Your task to perform on an android device: add a label to a message in the gmail app Image 0: 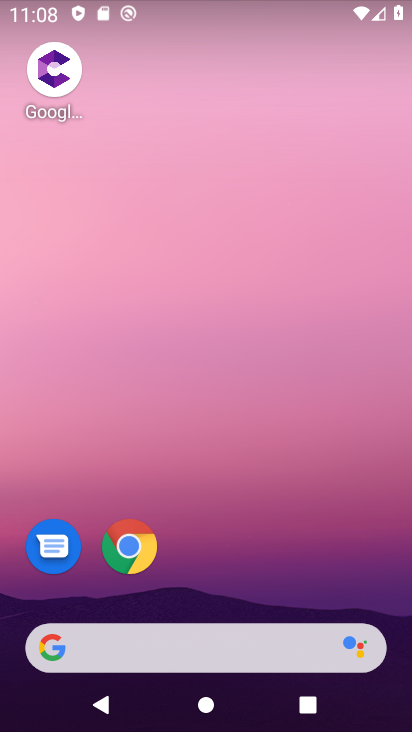
Step 0: drag from (297, 556) to (208, 37)
Your task to perform on an android device: add a label to a message in the gmail app Image 1: 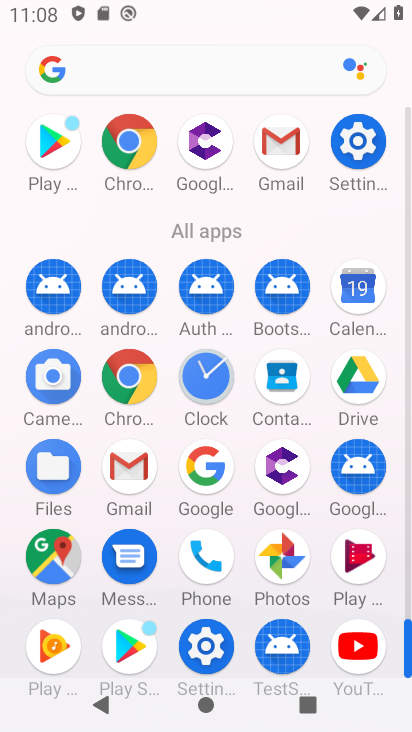
Step 1: click (128, 460)
Your task to perform on an android device: add a label to a message in the gmail app Image 2: 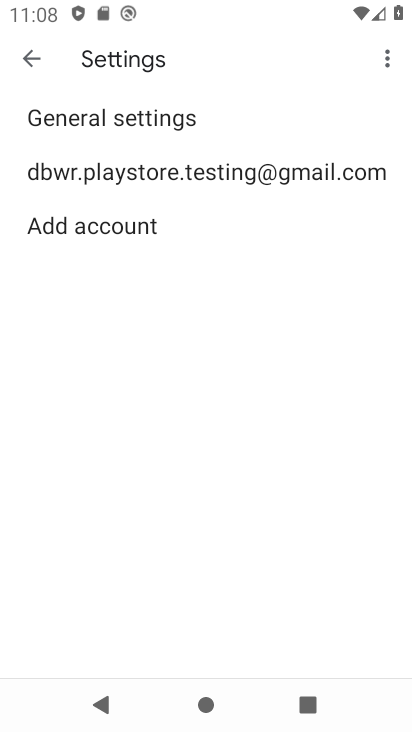
Step 2: click (31, 54)
Your task to perform on an android device: add a label to a message in the gmail app Image 3: 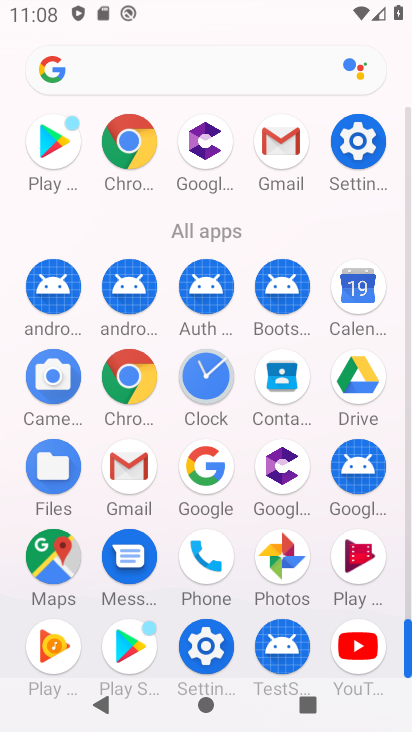
Step 3: click (285, 137)
Your task to perform on an android device: add a label to a message in the gmail app Image 4: 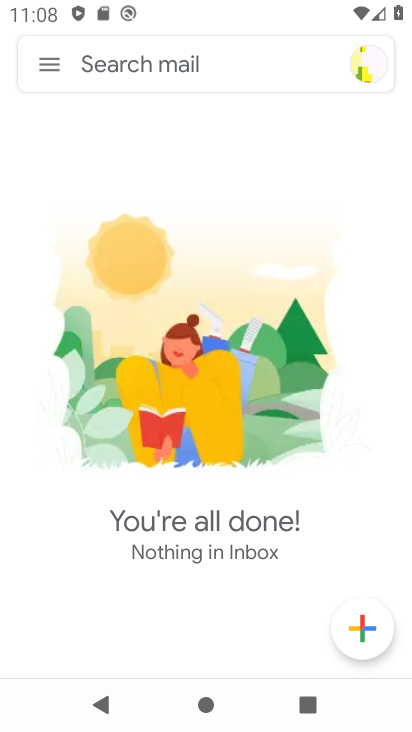
Step 4: click (18, 74)
Your task to perform on an android device: add a label to a message in the gmail app Image 5: 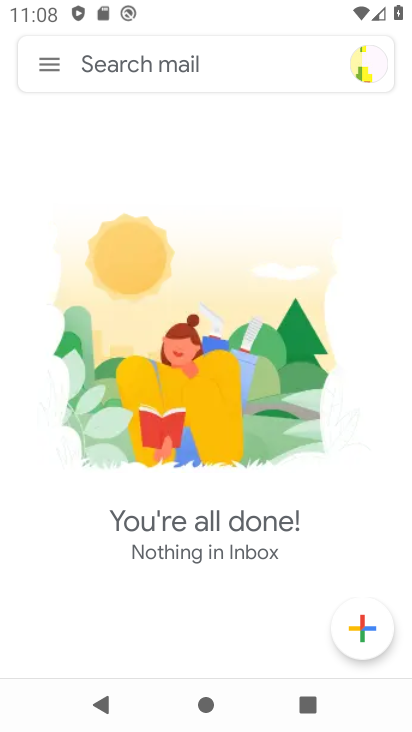
Step 5: click (48, 59)
Your task to perform on an android device: add a label to a message in the gmail app Image 6: 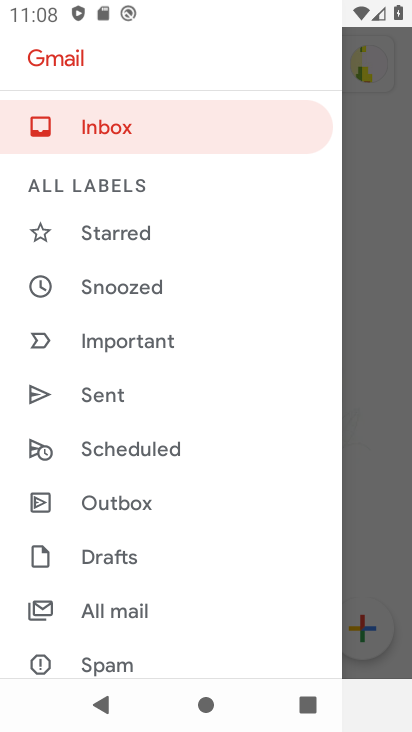
Step 6: drag from (137, 135) to (146, 503)
Your task to perform on an android device: add a label to a message in the gmail app Image 7: 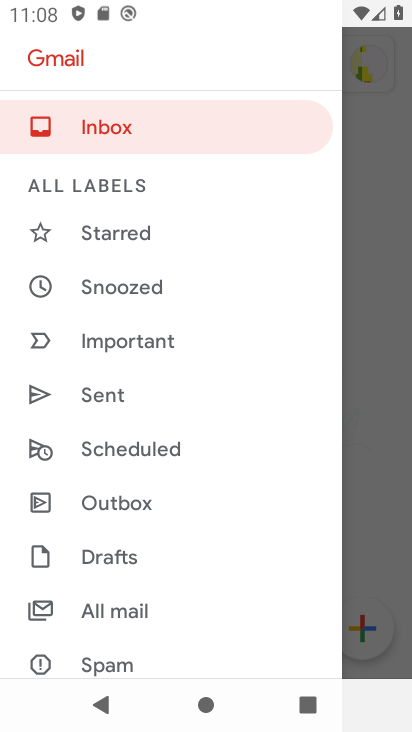
Step 7: click (138, 608)
Your task to perform on an android device: add a label to a message in the gmail app Image 8: 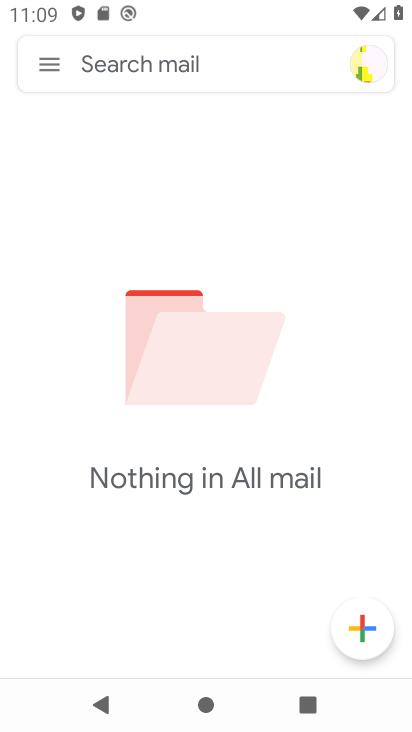
Step 8: task complete